Your task to perform on an android device: Open calendar and show me the third week of next month Image 0: 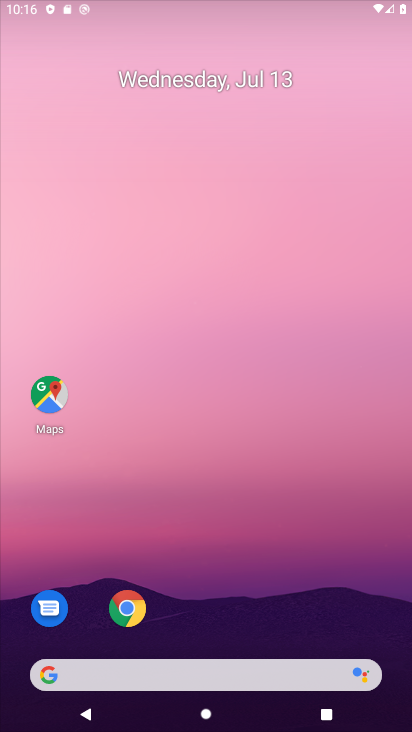
Step 0: press home button
Your task to perform on an android device: Open calendar and show me the third week of next month Image 1: 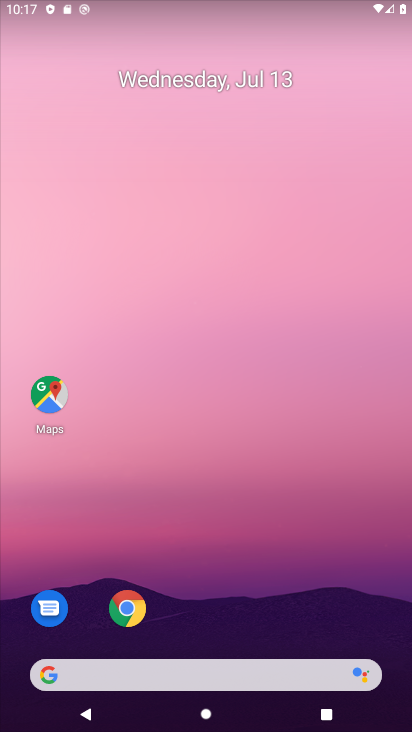
Step 1: drag from (254, 444) to (395, 423)
Your task to perform on an android device: Open calendar and show me the third week of next month Image 2: 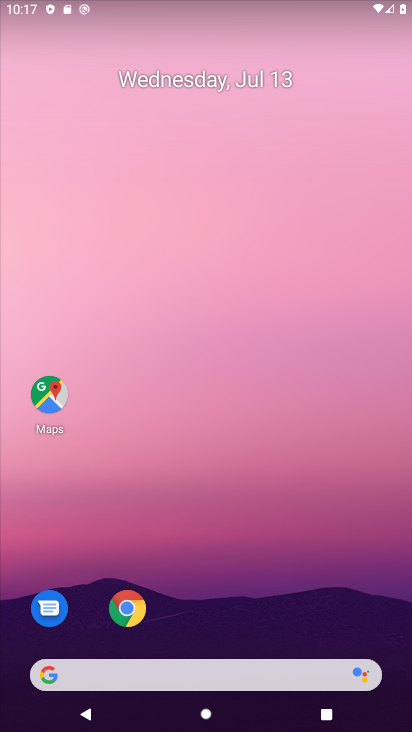
Step 2: drag from (256, 536) to (404, 71)
Your task to perform on an android device: Open calendar and show me the third week of next month Image 3: 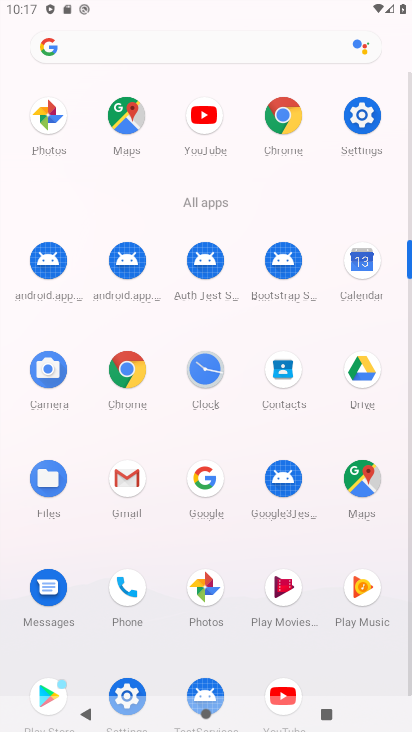
Step 3: click (353, 261)
Your task to perform on an android device: Open calendar and show me the third week of next month Image 4: 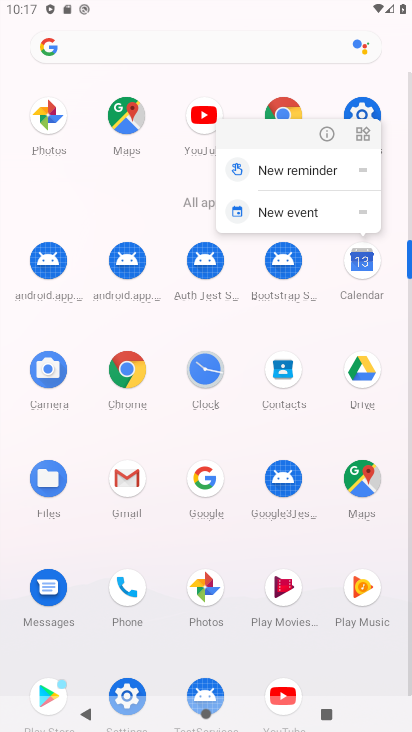
Step 4: click (353, 260)
Your task to perform on an android device: Open calendar and show me the third week of next month Image 5: 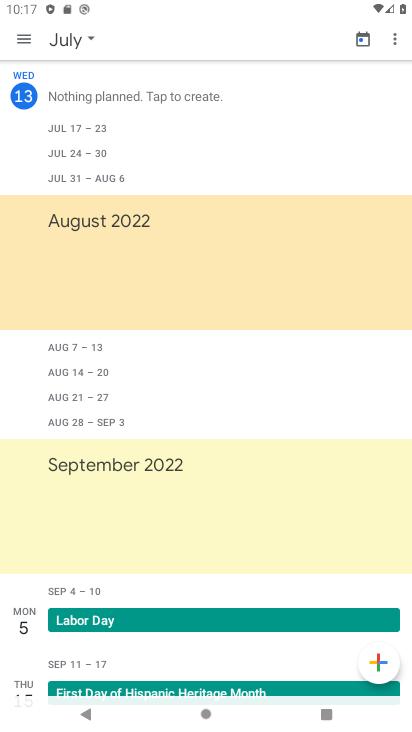
Step 5: click (21, 39)
Your task to perform on an android device: Open calendar and show me the third week of next month Image 6: 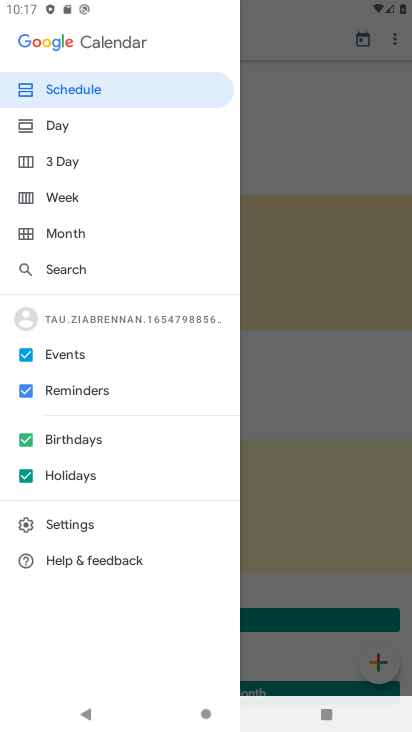
Step 6: click (58, 238)
Your task to perform on an android device: Open calendar and show me the third week of next month Image 7: 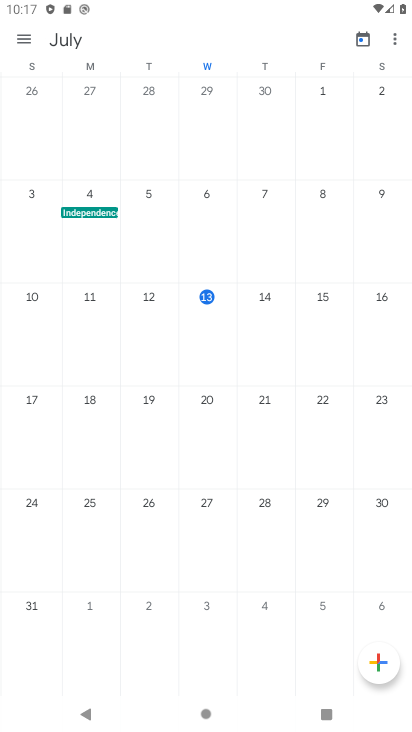
Step 7: task complete